Your task to perform on an android device: Open Google Maps Image 0: 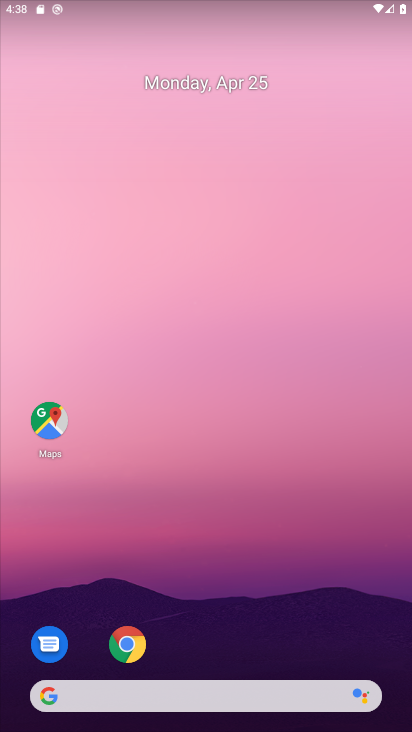
Step 0: drag from (232, 623) to (216, 240)
Your task to perform on an android device: Open Google Maps Image 1: 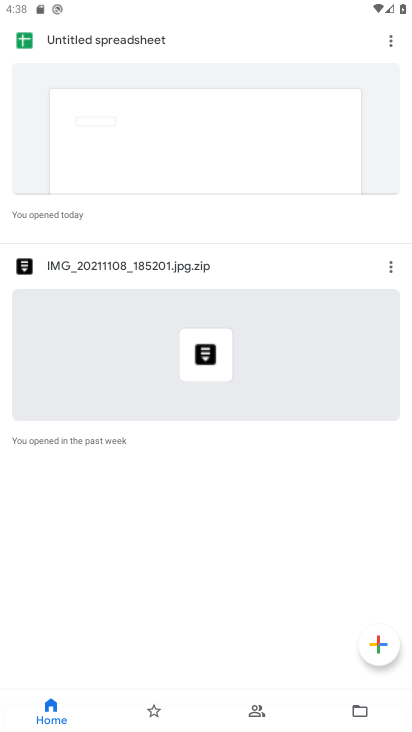
Step 1: press home button
Your task to perform on an android device: Open Google Maps Image 2: 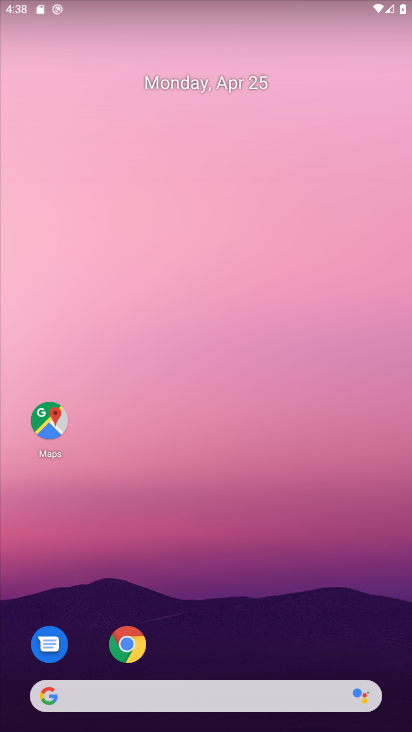
Step 2: click (50, 424)
Your task to perform on an android device: Open Google Maps Image 3: 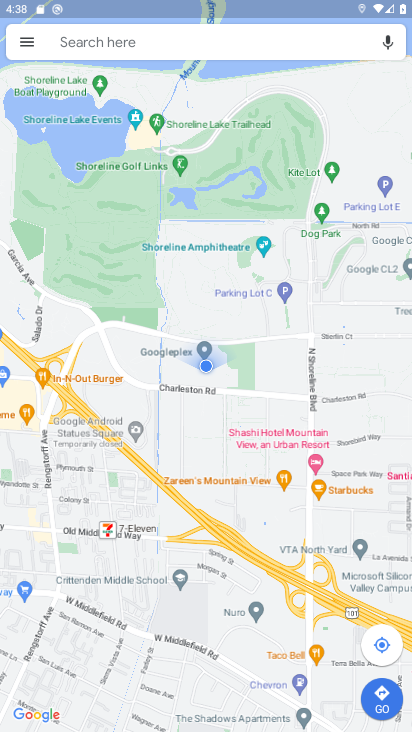
Step 3: task complete